Your task to perform on an android device: open device folders in google photos Image 0: 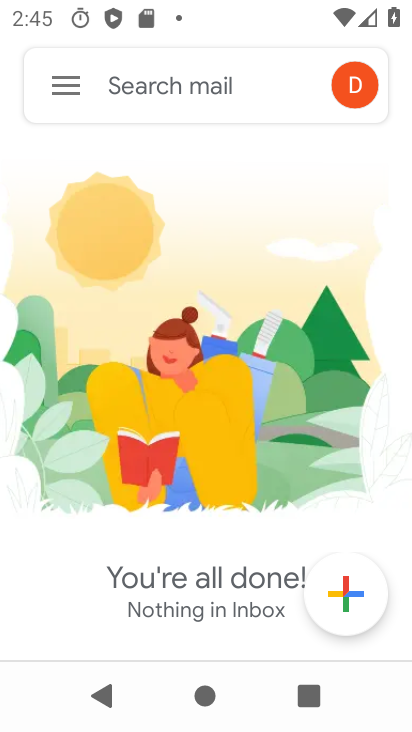
Step 0: press home button
Your task to perform on an android device: open device folders in google photos Image 1: 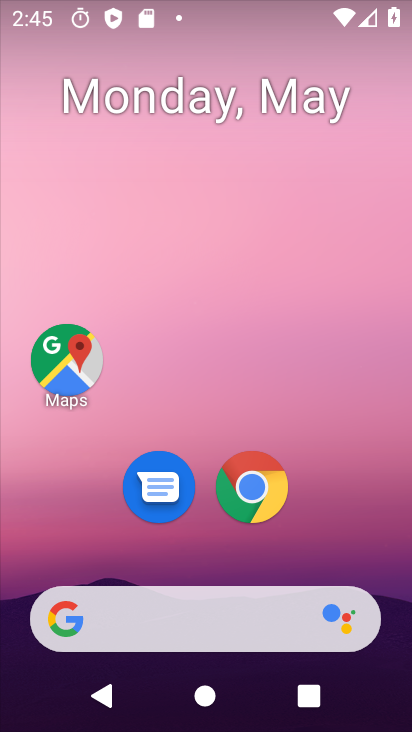
Step 1: drag from (239, 563) to (222, 7)
Your task to perform on an android device: open device folders in google photos Image 2: 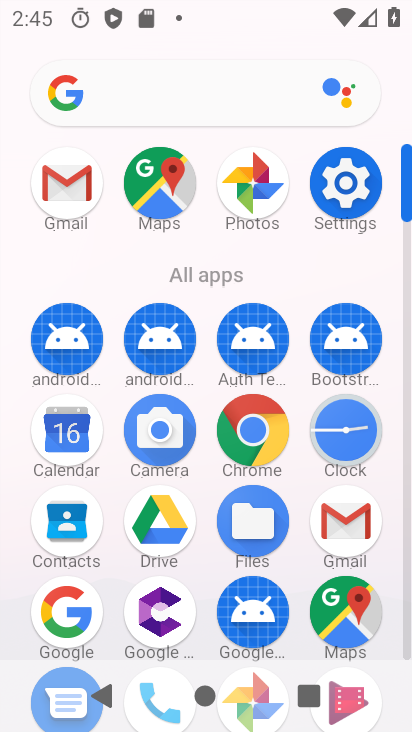
Step 2: drag from (248, 590) to (276, 293)
Your task to perform on an android device: open device folders in google photos Image 3: 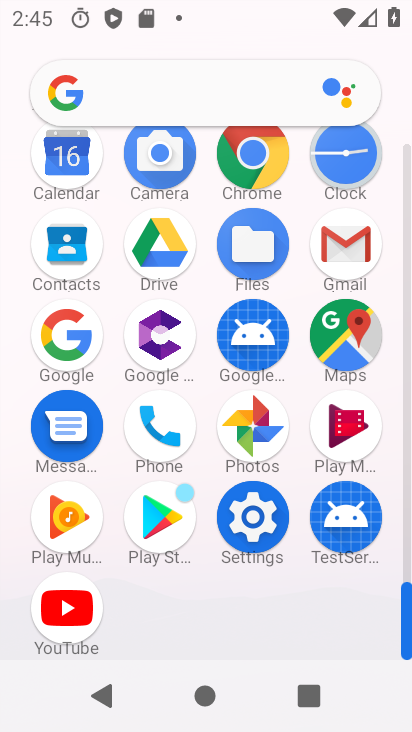
Step 3: click (259, 446)
Your task to perform on an android device: open device folders in google photos Image 4: 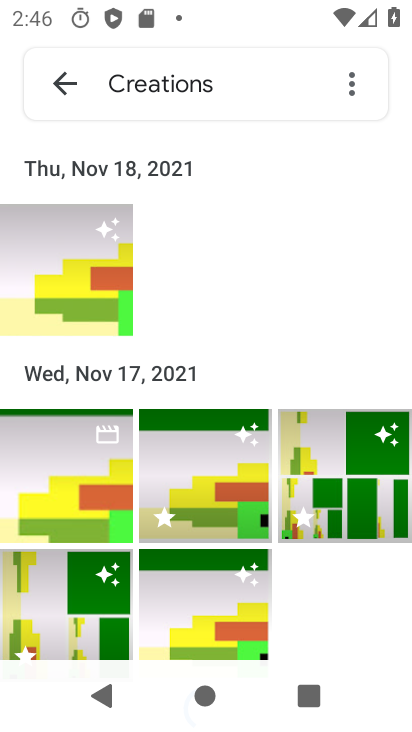
Step 4: click (57, 91)
Your task to perform on an android device: open device folders in google photos Image 5: 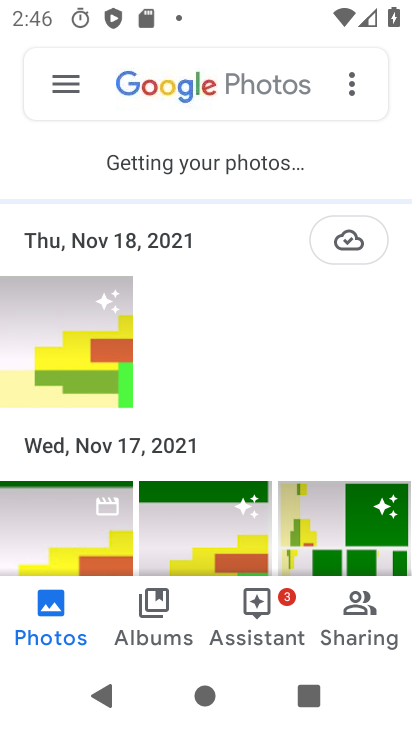
Step 5: click (60, 88)
Your task to perform on an android device: open device folders in google photos Image 6: 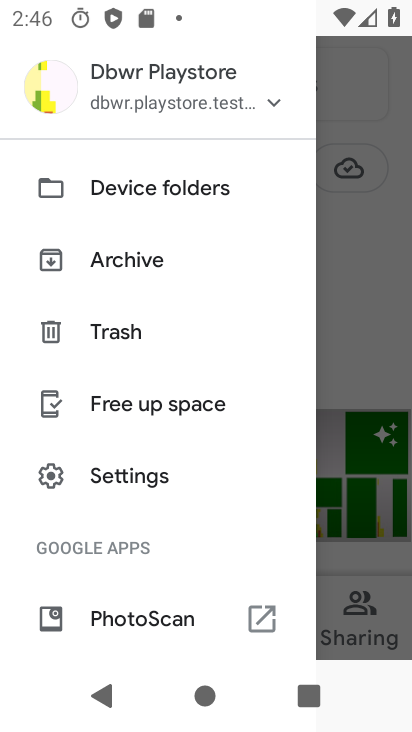
Step 6: click (173, 194)
Your task to perform on an android device: open device folders in google photos Image 7: 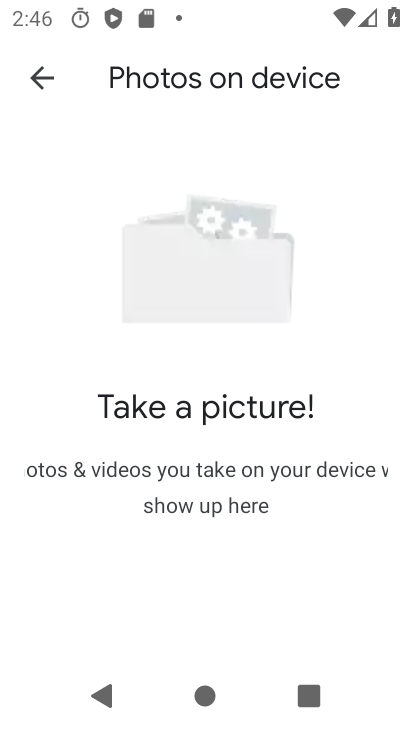
Step 7: task complete